Your task to perform on an android device: Open settings Image 0: 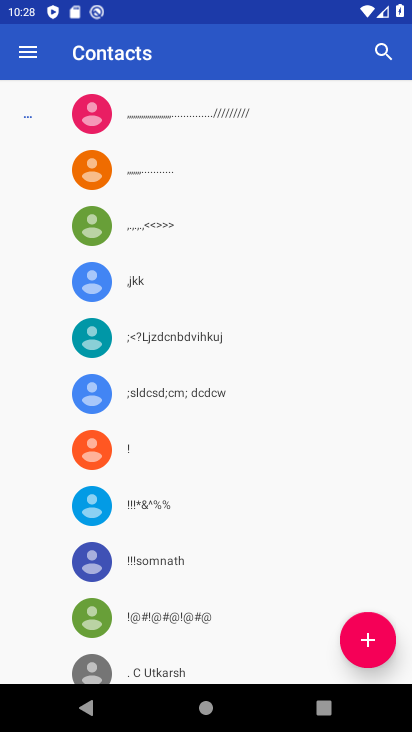
Step 0: press home button
Your task to perform on an android device: Open settings Image 1: 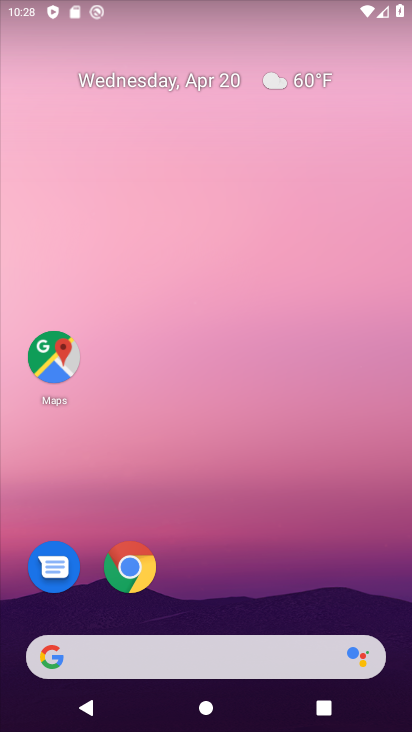
Step 1: drag from (327, 640) to (248, 1)
Your task to perform on an android device: Open settings Image 2: 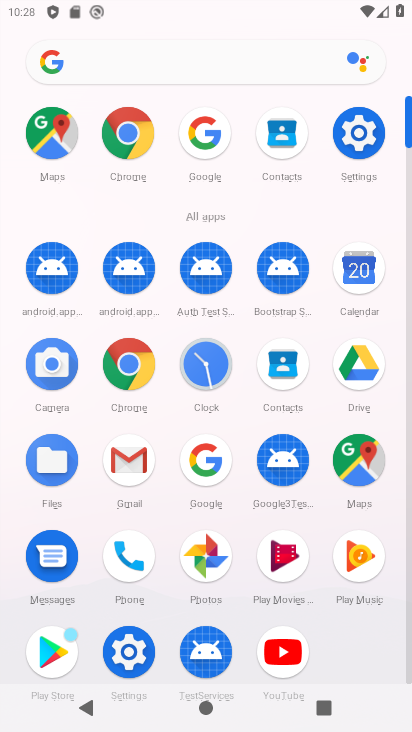
Step 2: click (367, 143)
Your task to perform on an android device: Open settings Image 3: 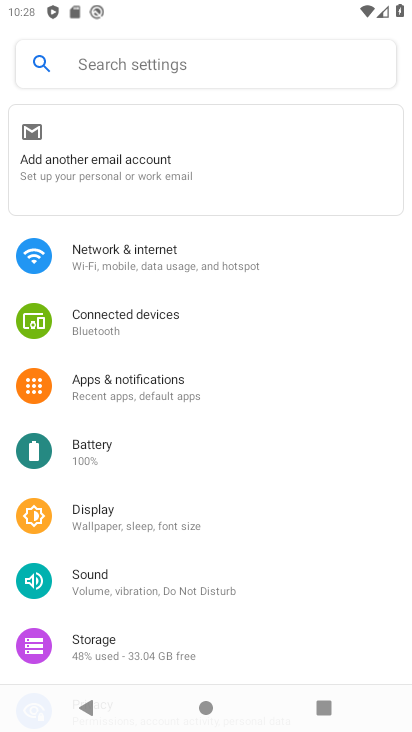
Step 3: task complete